Your task to perform on an android device: check android version Image 0: 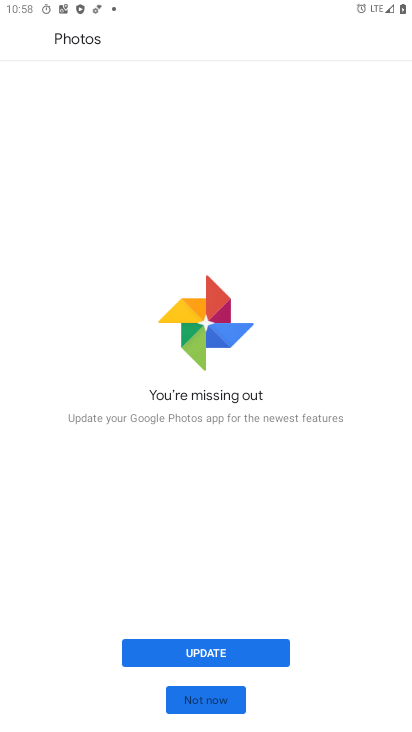
Step 0: press home button
Your task to perform on an android device: check android version Image 1: 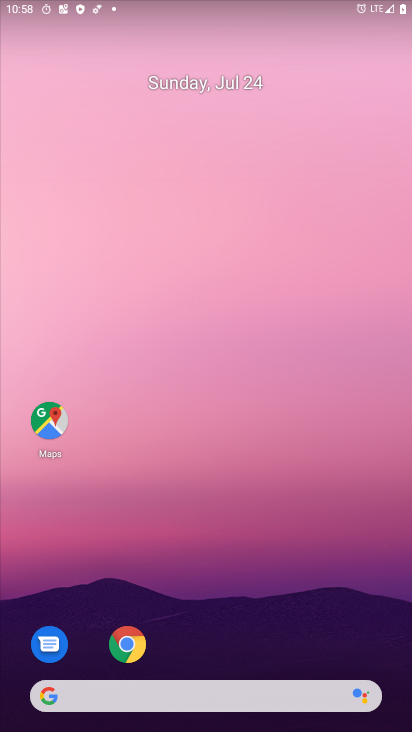
Step 1: drag from (193, 685) to (302, 194)
Your task to perform on an android device: check android version Image 2: 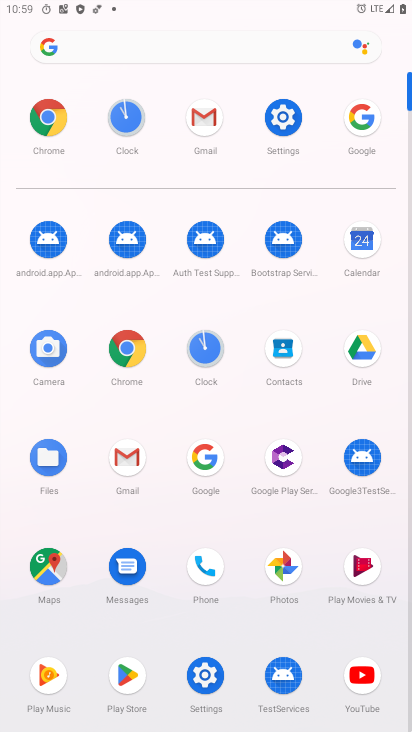
Step 2: click (289, 116)
Your task to perform on an android device: check android version Image 3: 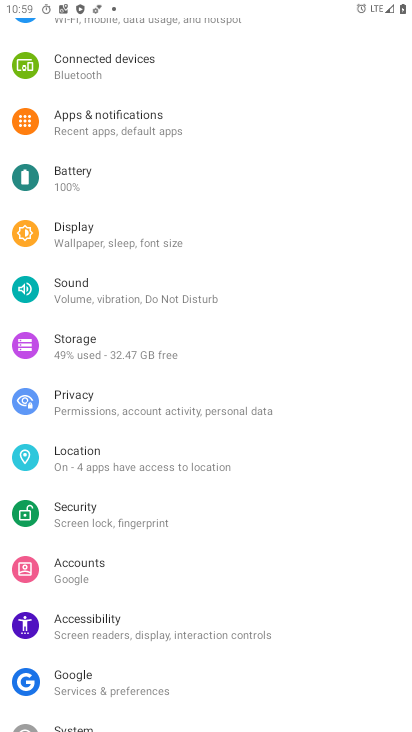
Step 3: drag from (137, 685) to (187, 231)
Your task to perform on an android device: check android version Image 4: 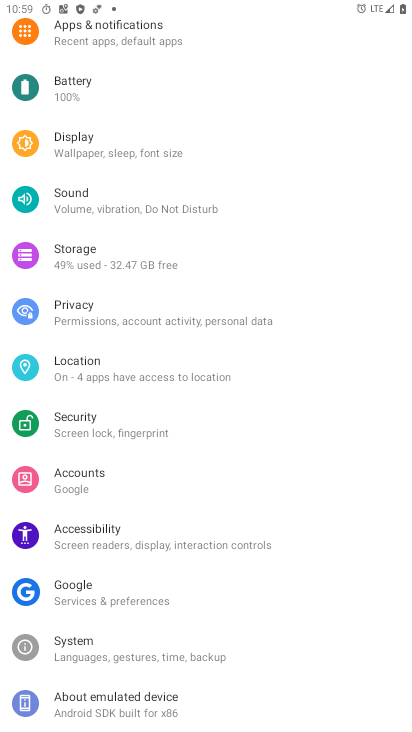
Step 4: click (62, 702)
Your task to perform on an android device: check android version Image 5: 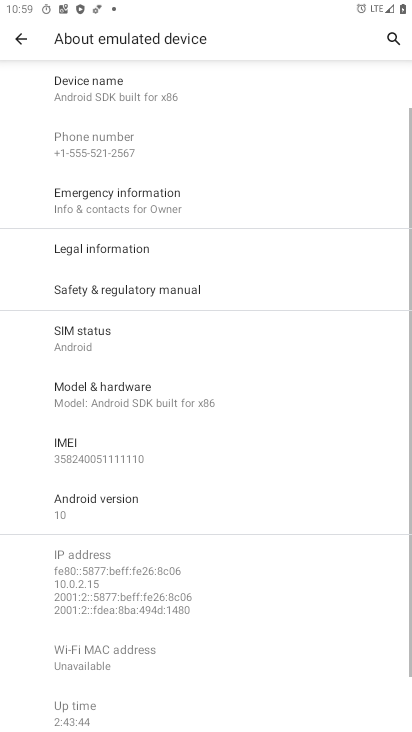
Step 5: task complete